Your task to perform on an android device: Open Chrome and go to the settings page Image 0: 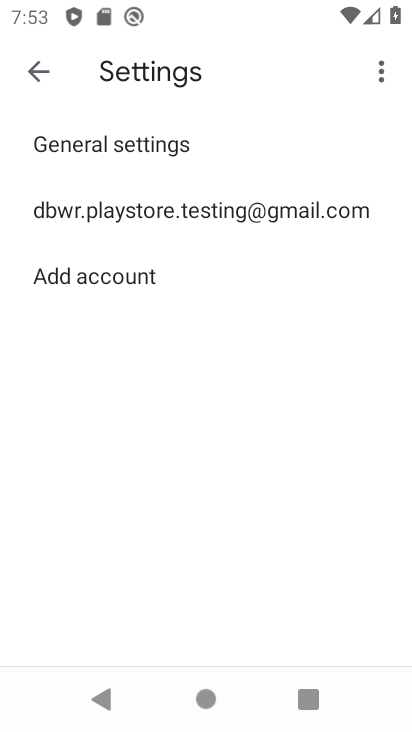
Step 0: press back button
Your task to perform on an android device: Open Chrome and go to the settings page Image 1: 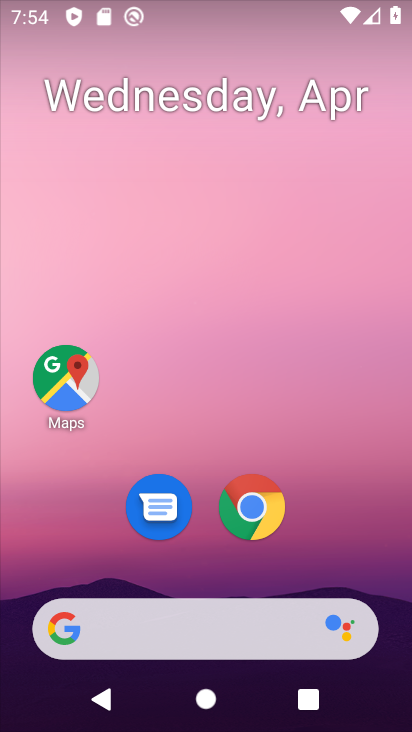
Step 1: drag from (309, 533) to (300, 43)
Your task to perform on an android device: Open Chrome and go to the settings page Image 2: 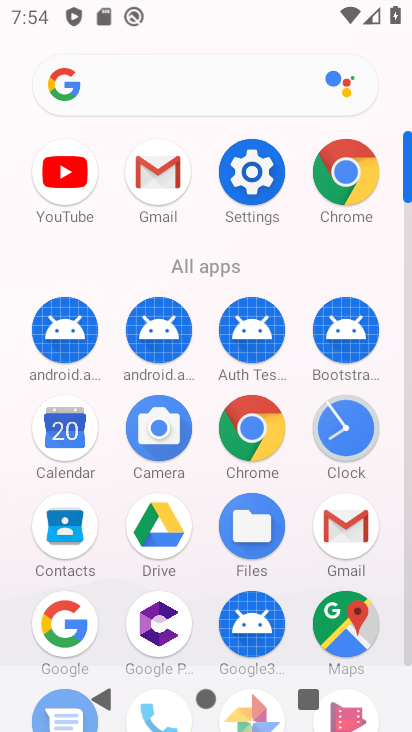
Step 2: drag from (5, 561) to (19, 283)
Your task to perform on an android device: Open Chrome and go to the settings page Image 3: 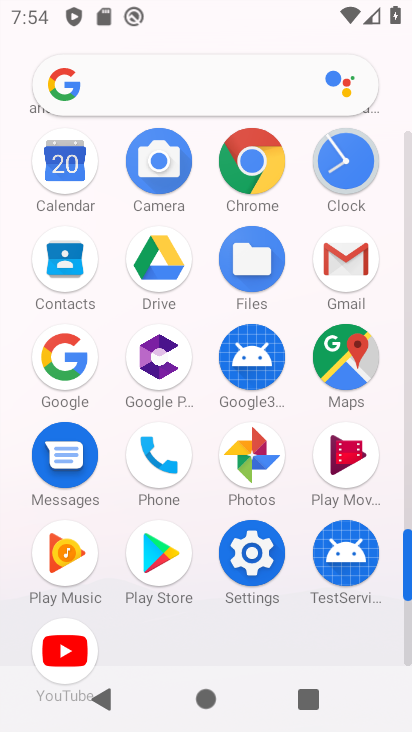
Step 3: click (247, 162)
Your task to perform on an android device: Open Chrome and go to the settings page Image 4: 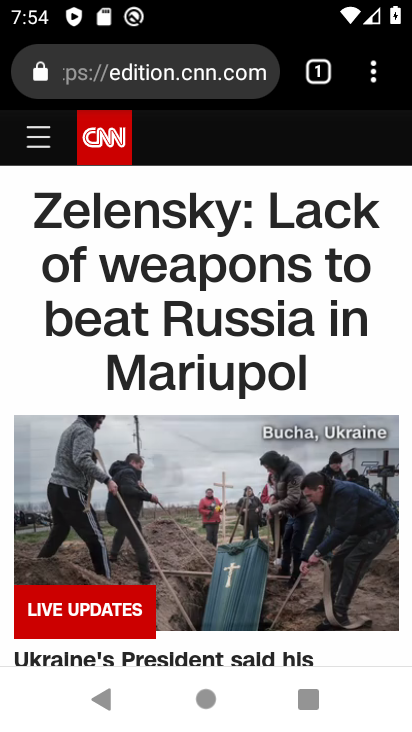
Step 4: task complete